Your task to perform on an android device: Open battery settings Image 0: 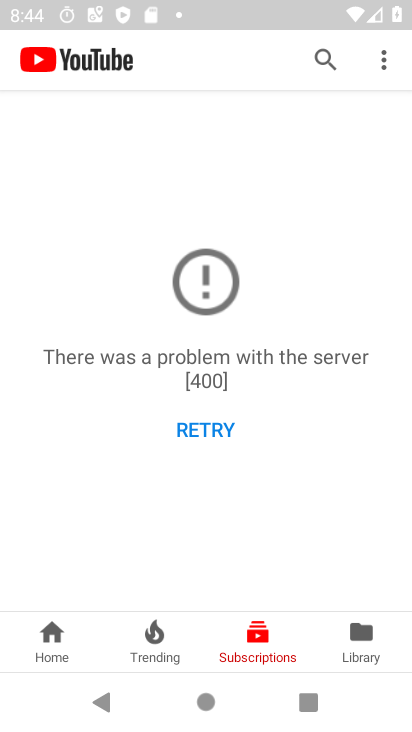
Step 0: press home button
Your task to perform on an android device: Open battery settings Image 1: 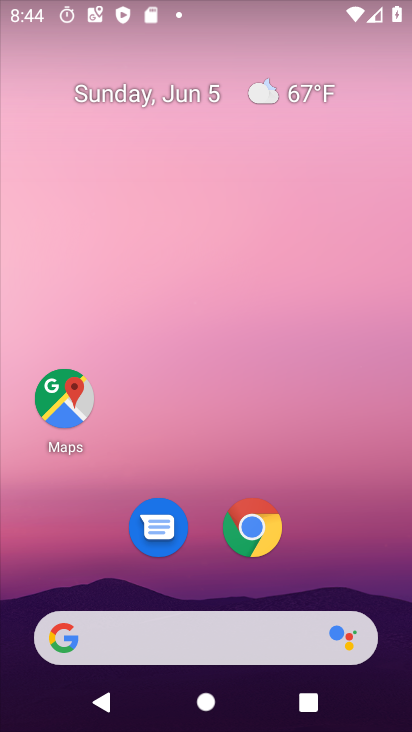
Step 1: drag from (226, 727) to (217, 181)
Your task to perform on an android device: Open battery settings Image 2: 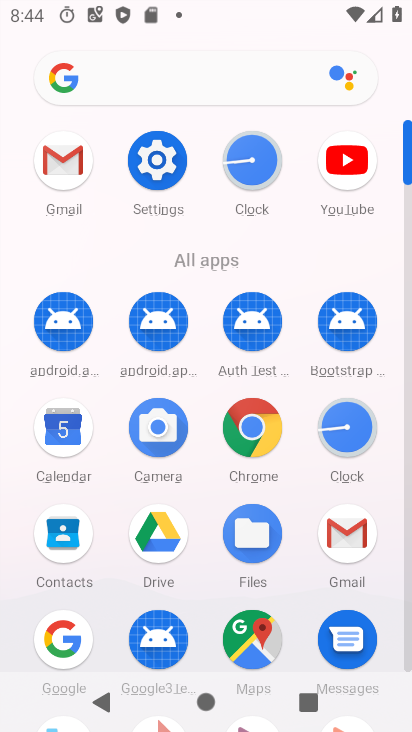
Step 2: click (154, 159)
Your task to perform on an android device: Open battery settings Image 3: 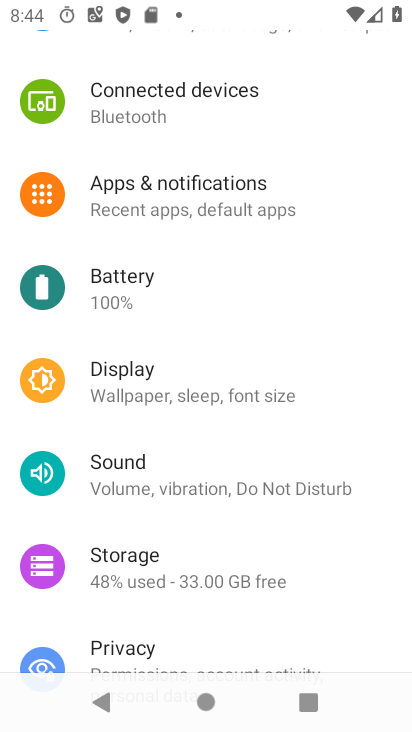
Step 3: drag from (147, 642) to (145, 441)
Your task to perform on an android device: Open battery settings Image 4: 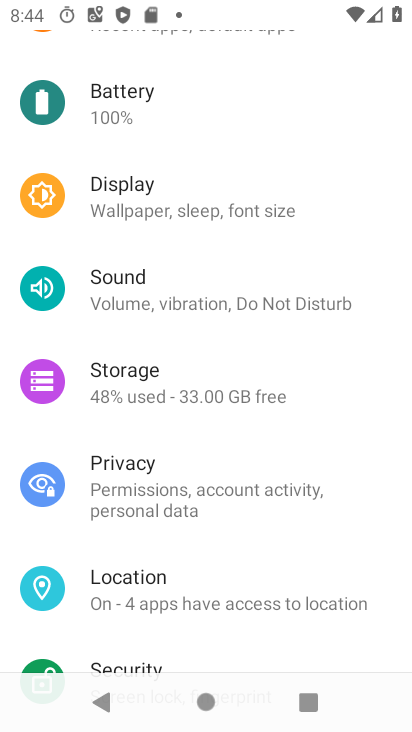
Step 4: click (125, 100)
Your task to perform on an android device: Open battery settings Image 5: 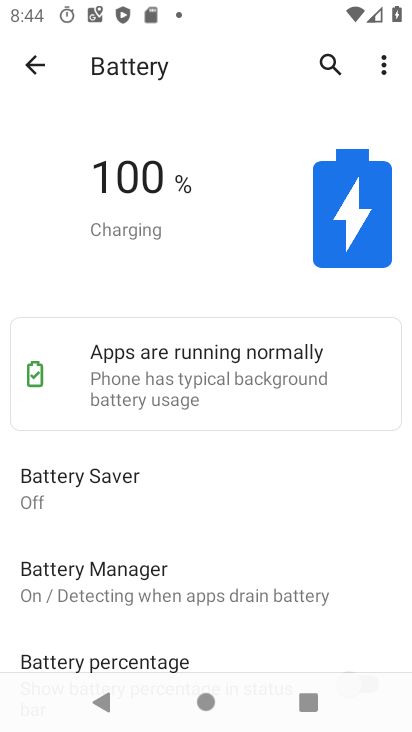
Step 5: task complete